Your task to perform on an android device: Go to Reddit.com Image 0: 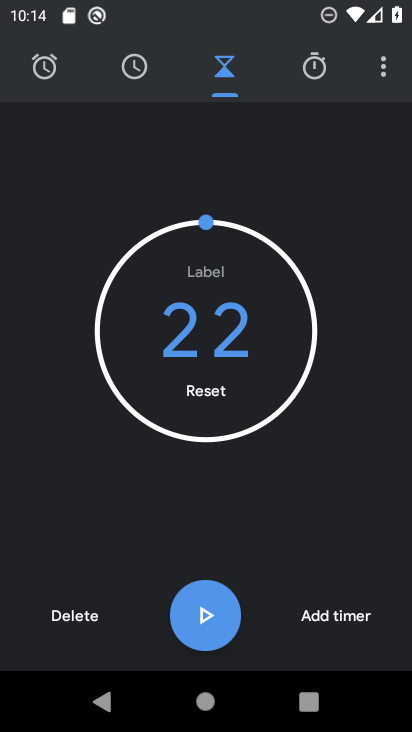
Step 0: press home button
Your task to perform on an android device: Go to Reddit.com Image 1: 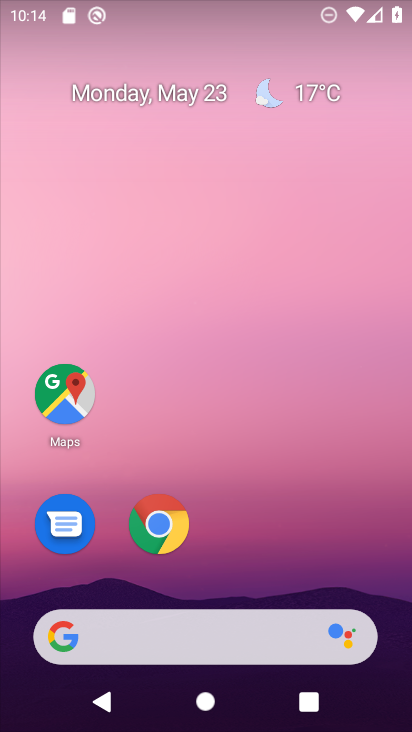
Step 1: click (139, 522)
Your task to perform on an android device: Go to Reddit.com Image 2: 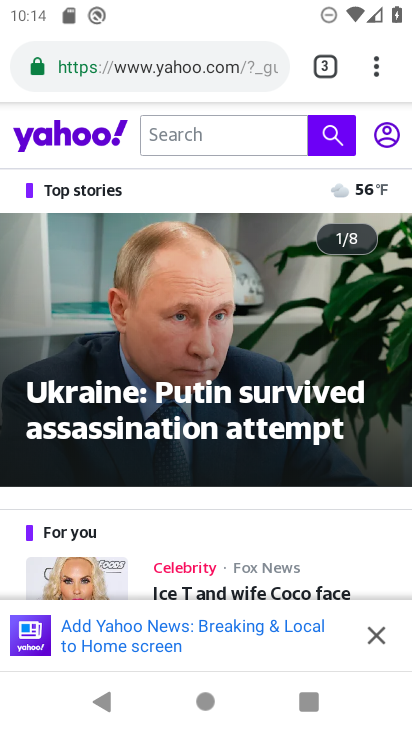
Step 2: click (325, 65)
Your task to perform on an android device: Go to Reddit.com Image 3: 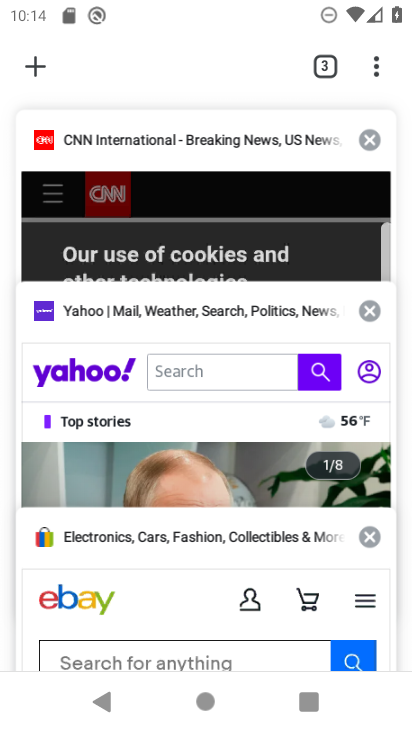
Step 3: click (30, 73)
Your task to perform on an android device: Go to Reddit.com Image 4: 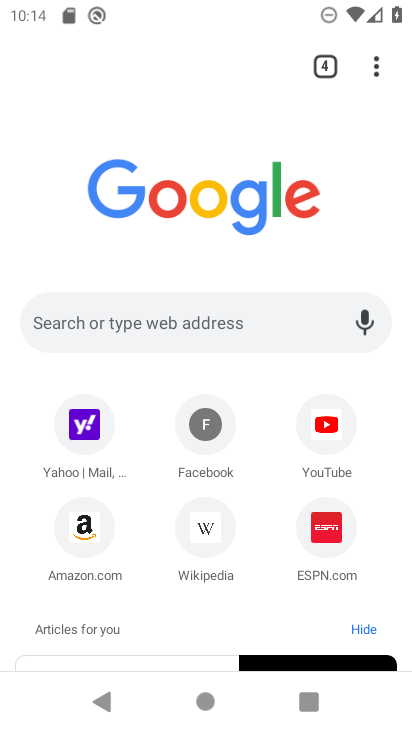
Step 4: click (111, 308)
Your task to perform on an android device: Go to Reddit.com Image 5: 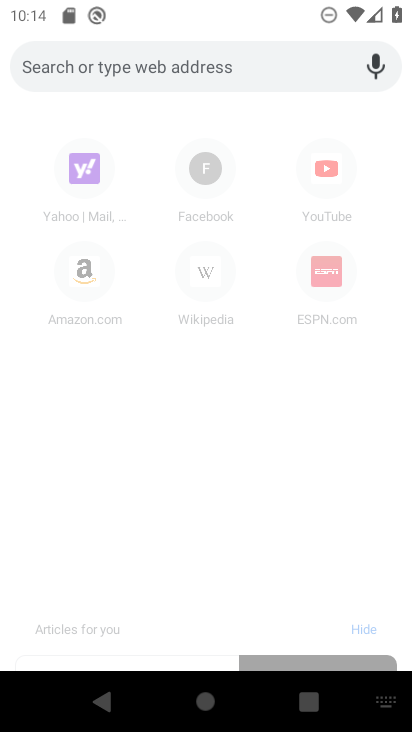
Step 5: type "Reddit.com"
Your task to perform on an android device: Go to Reddit.com Image 6: 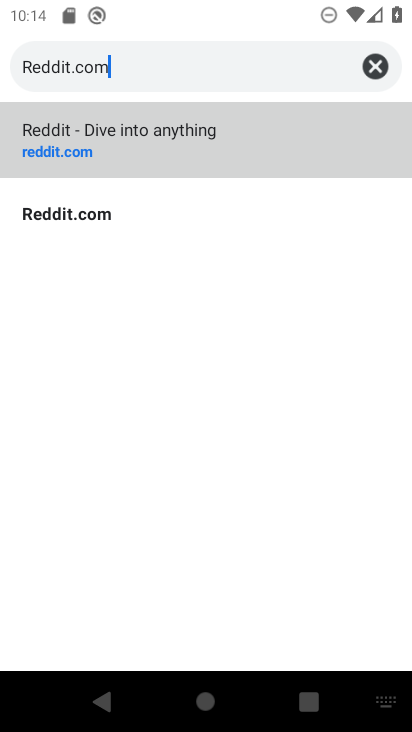
Step 6: click (112, 153)
Your task to perform on an android device: Go to Reddit.com Image 7: 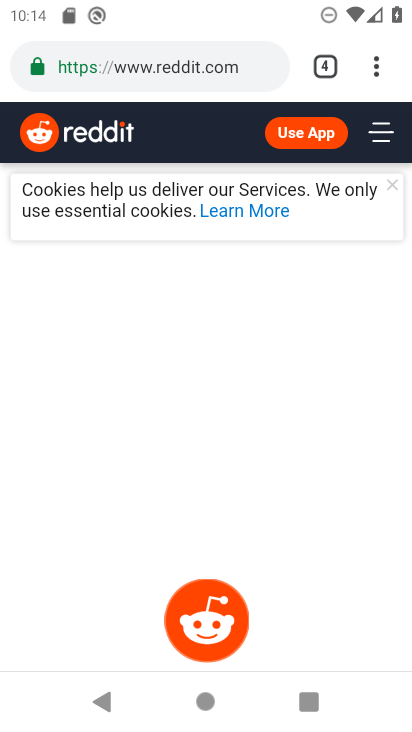
Step 7: task complete